Your task to perform on an android device: What is the news today? Image 0: 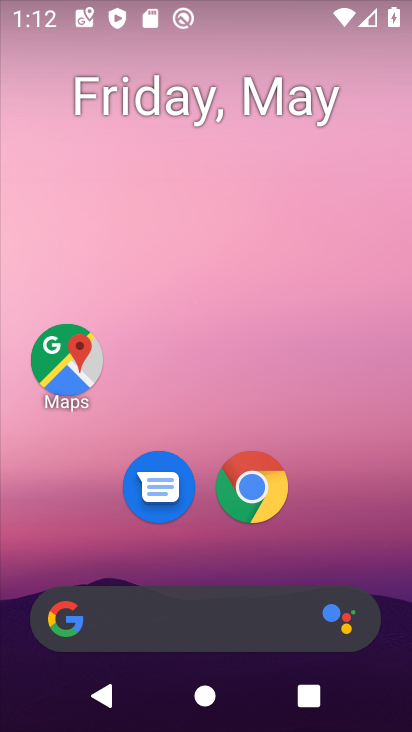
Step 0: click (187, 617)
Your task to perform on an android device: What is the news today? Image 1: 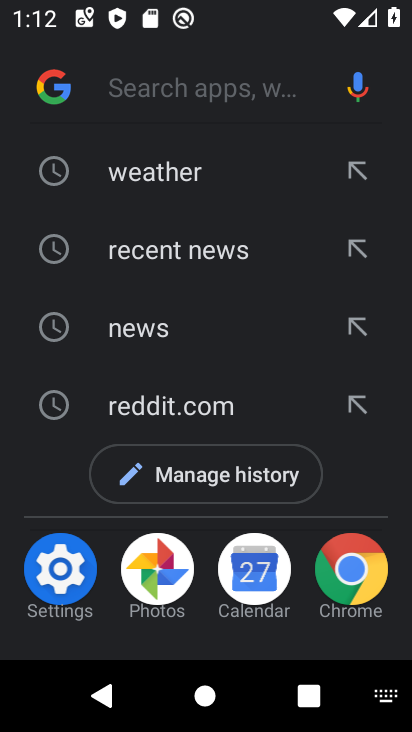
Step 1: click (109, 336)
Your task to perform on an android device: What is the news today? Image 2: 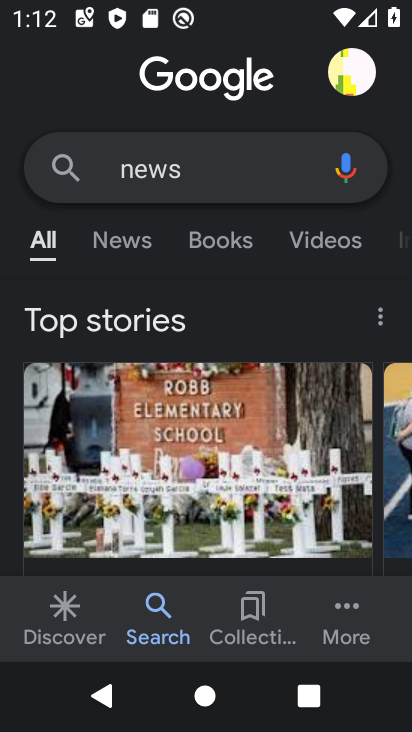
Step 2: task complete